Your task to perform on an android device: turn on showing notifications on the lock screen Image 0: 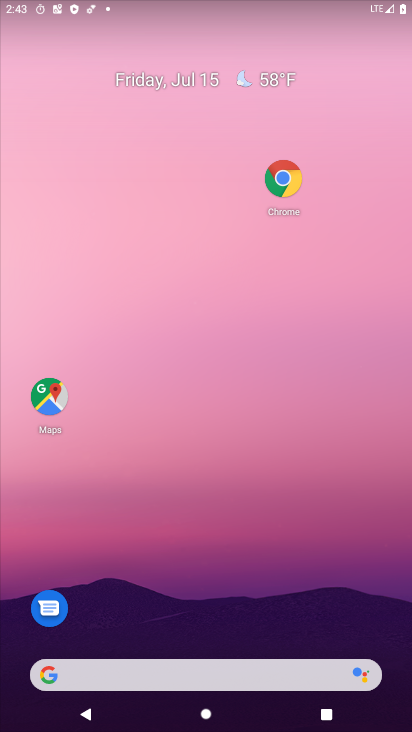
Step 0: drag from (248, 589) to (238, 138)
Your task to perform on an android device: turn on showing notifications on the lock screen Image 1: 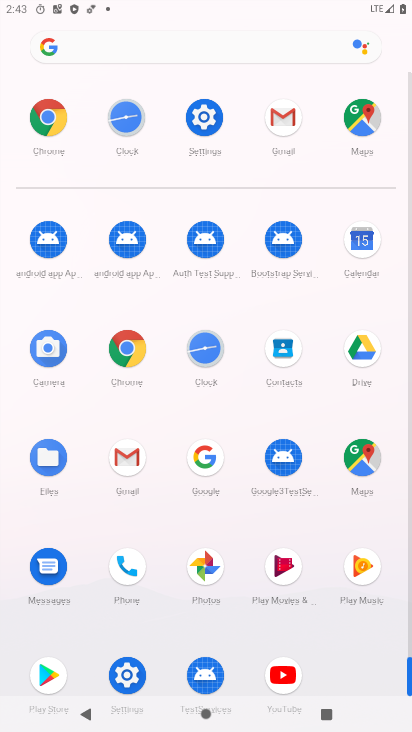
Step 1: click (125, 665)
Your task to perform on an android device: turn on showing notifications on the lock screen Image 2: 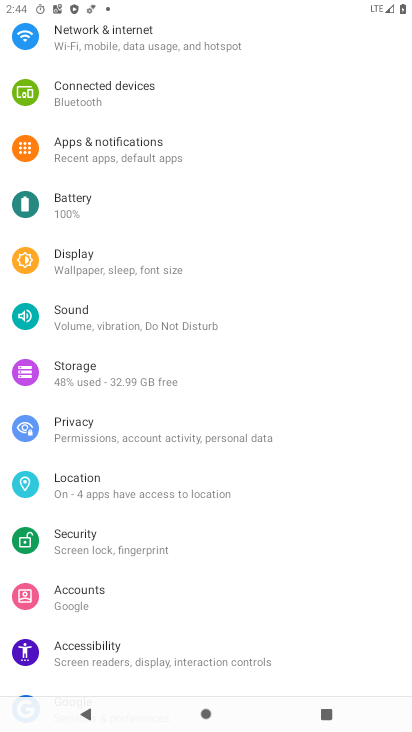
Step 2: click (90, 140)
Your task to perform on an android device: turn on showing notifications on the lock screen Image 3: 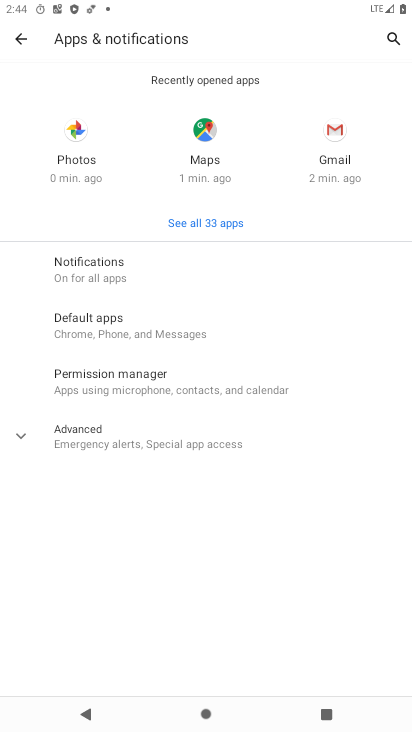
Step 3: click (104, 263)
Your task to perform on an android device: turn on showing notifications on the lock screen Image 4: 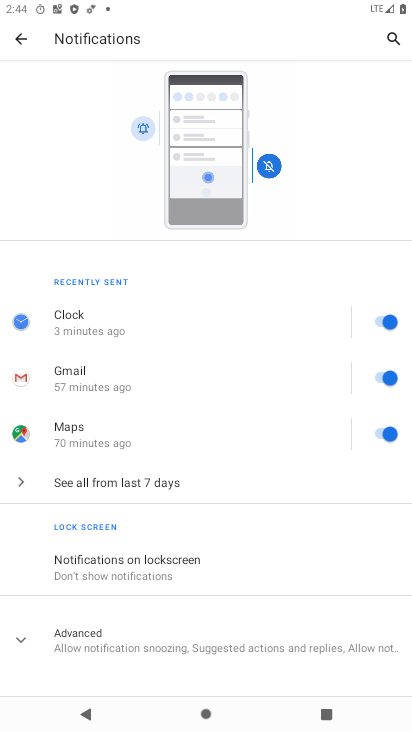
Step 4: click (134, 571)
Your task to perform on an android device: turn on showing notifications on the lock screen Image 5: 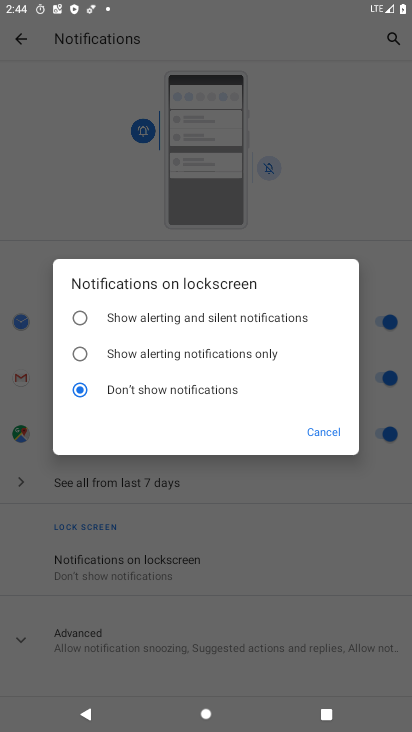
Step 5: click (112, 306)
Your task to perform on an android device: turn on showing notifications on the lock screen Image 6: 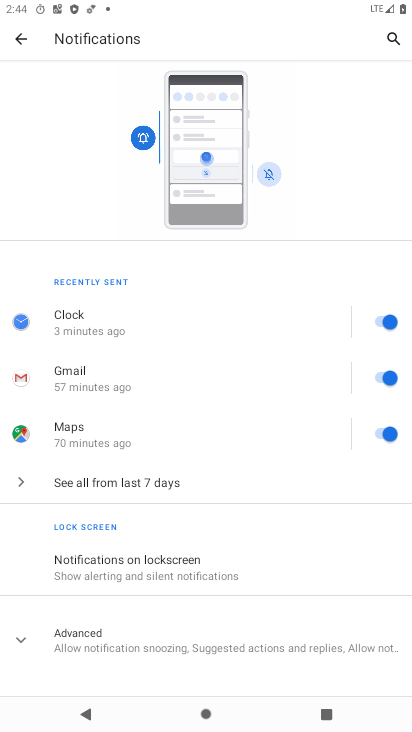
Step 6: task complete